Your task to perform on an android device: install app "NewsBreak: Local News & Alerts" Image 0: 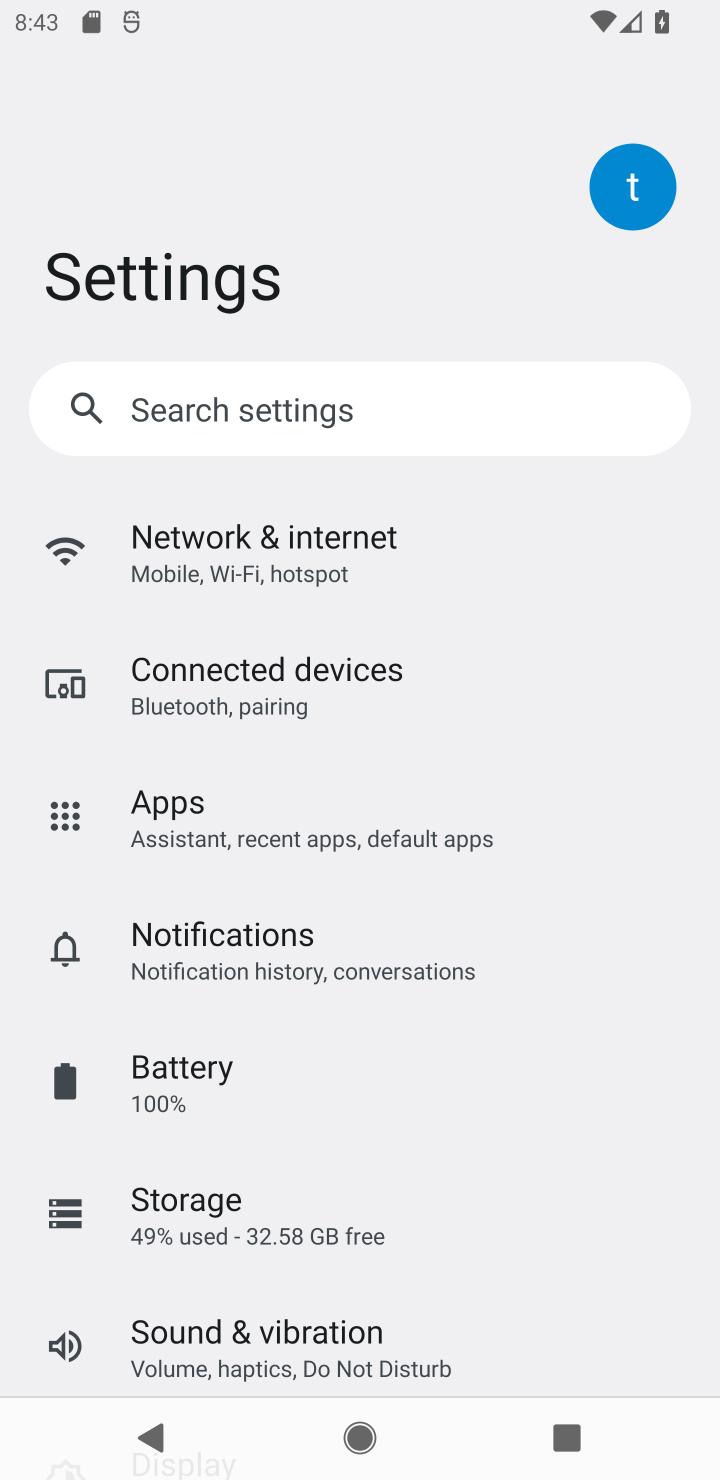
Step 0: press home button
Your task to perform on an android device: install app "NewsBreak: Local News & Alerts" Image 1: 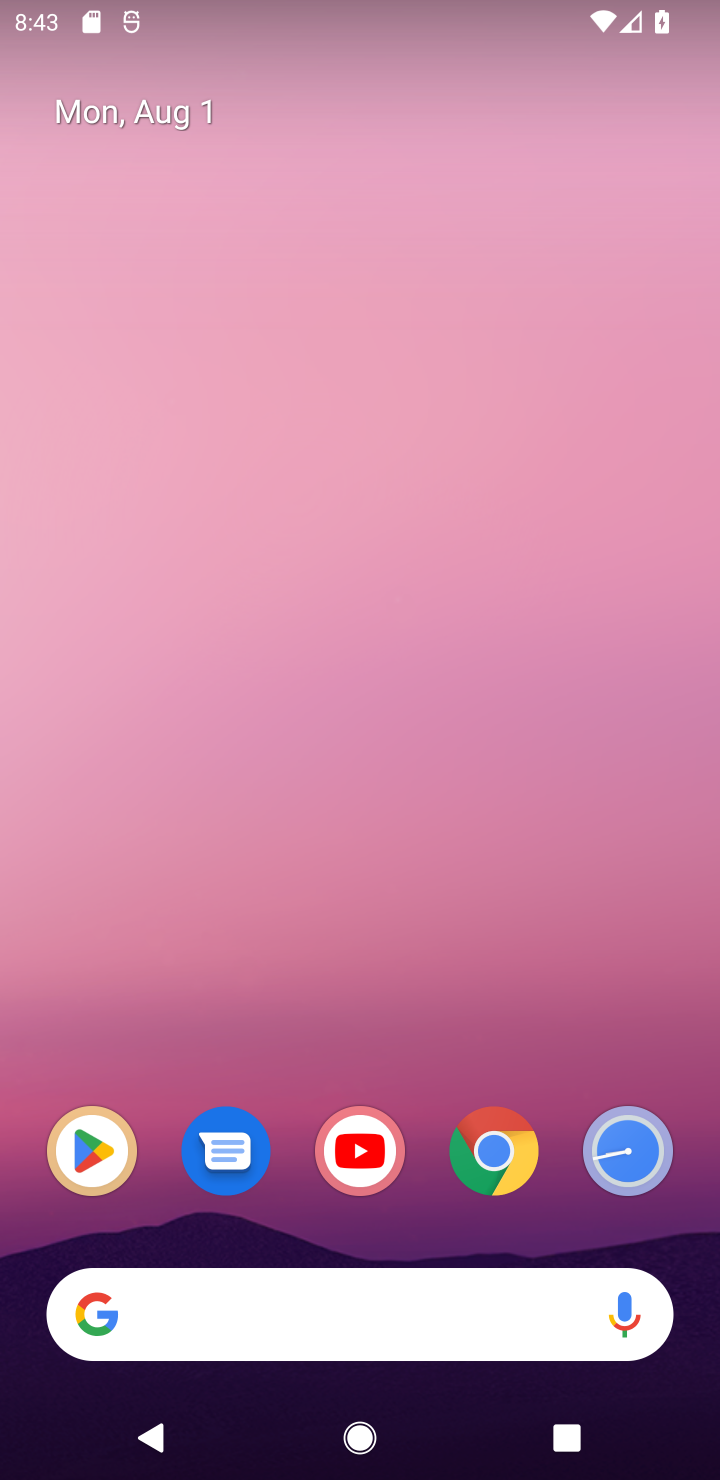
Step 1: click (100, 1170)
Your task to perform on an android device: install app "NewsBreak: Local News & Alerts" Image 2: 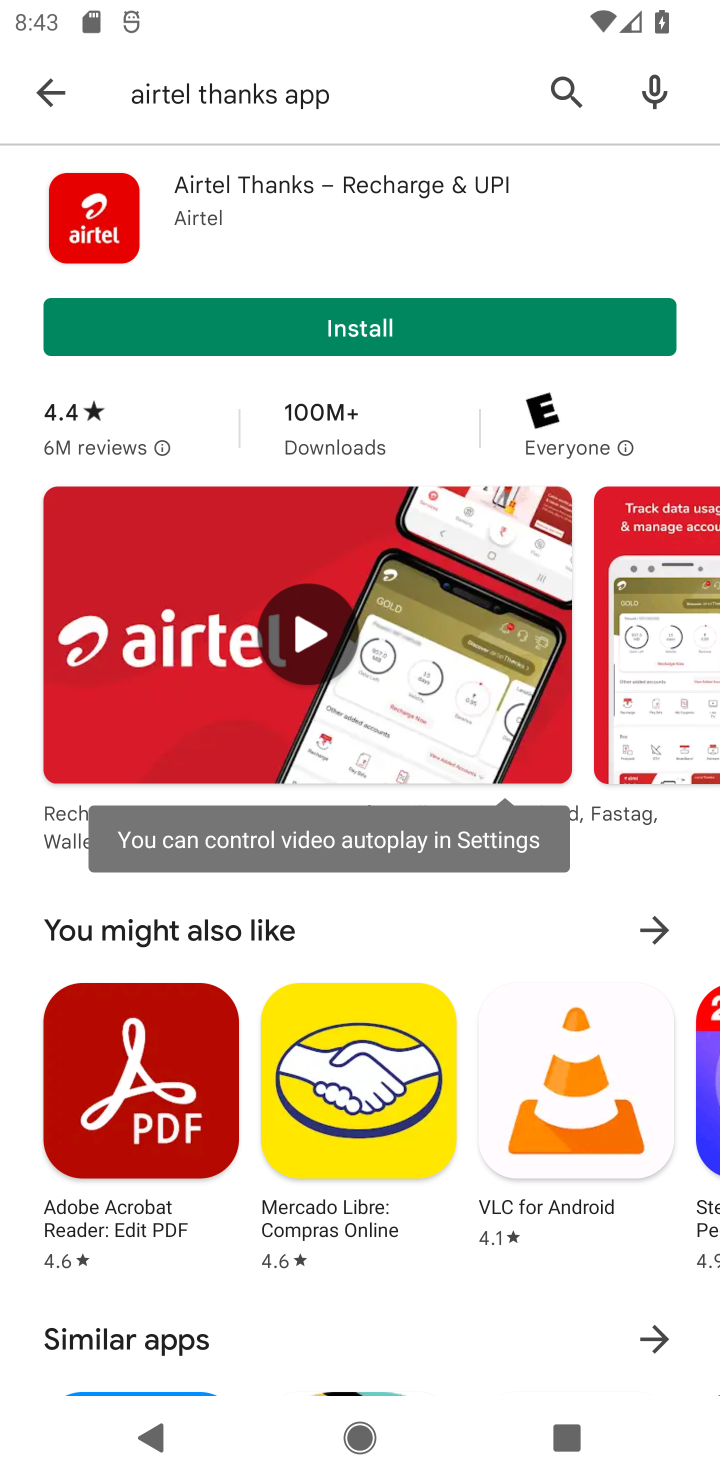
Step 2: click (574, 63)
Your task to perform on an android device: install app "NewsBreak: Local News & Alerts" Image 3: 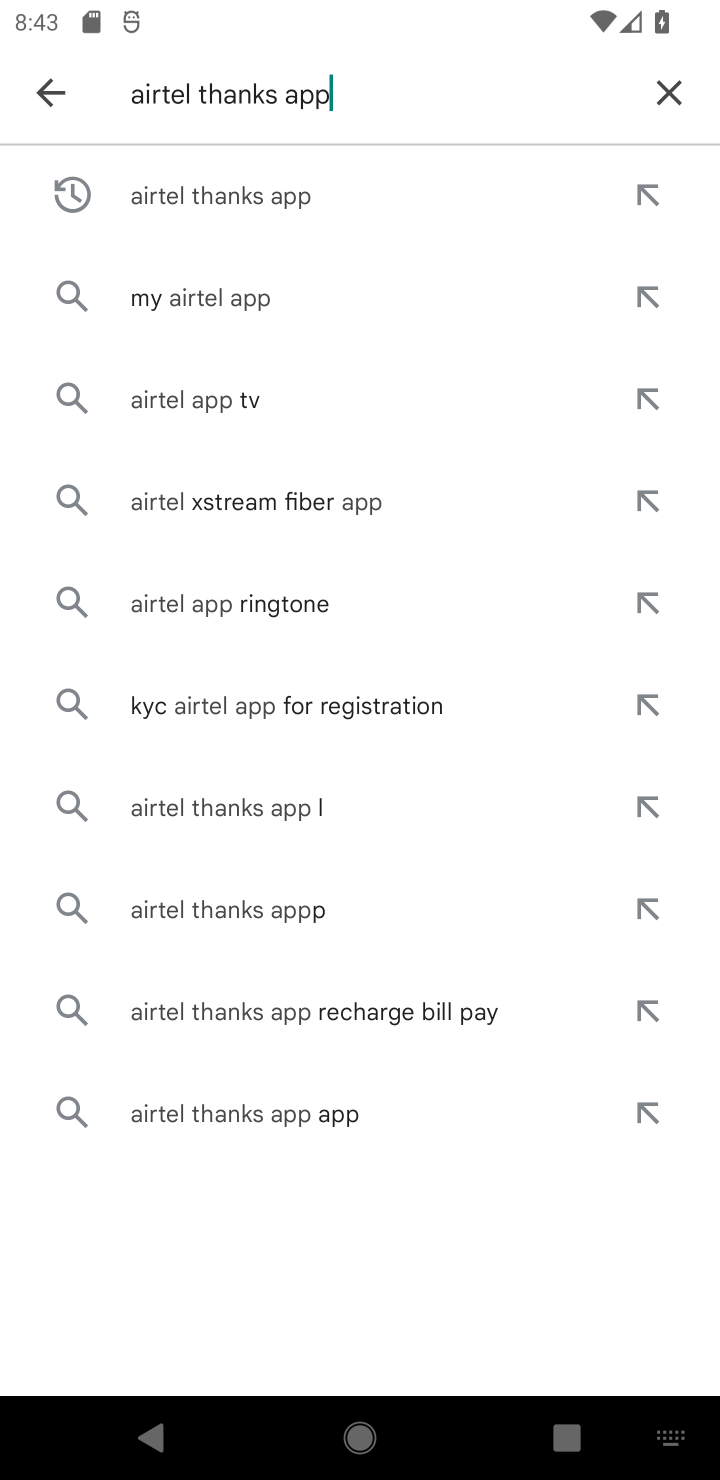
Step 3: click (667, 108)
Your task to perform on an android device: install app "NewsBreak: Local News & Alerts" Image 4: 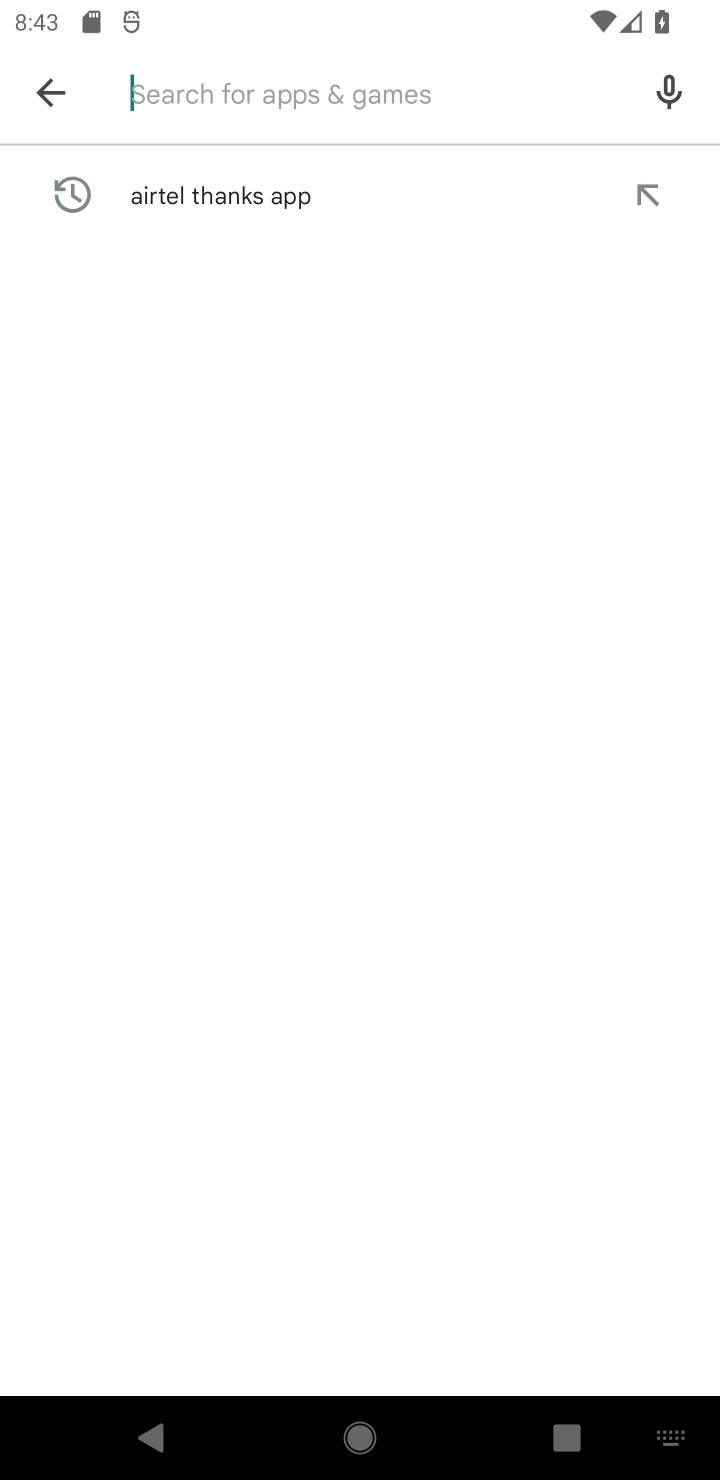
Step 4: click (471, 105)
Your task to perform on an android device: install app "NewsBreak: Local News & Alerts" Image 5: 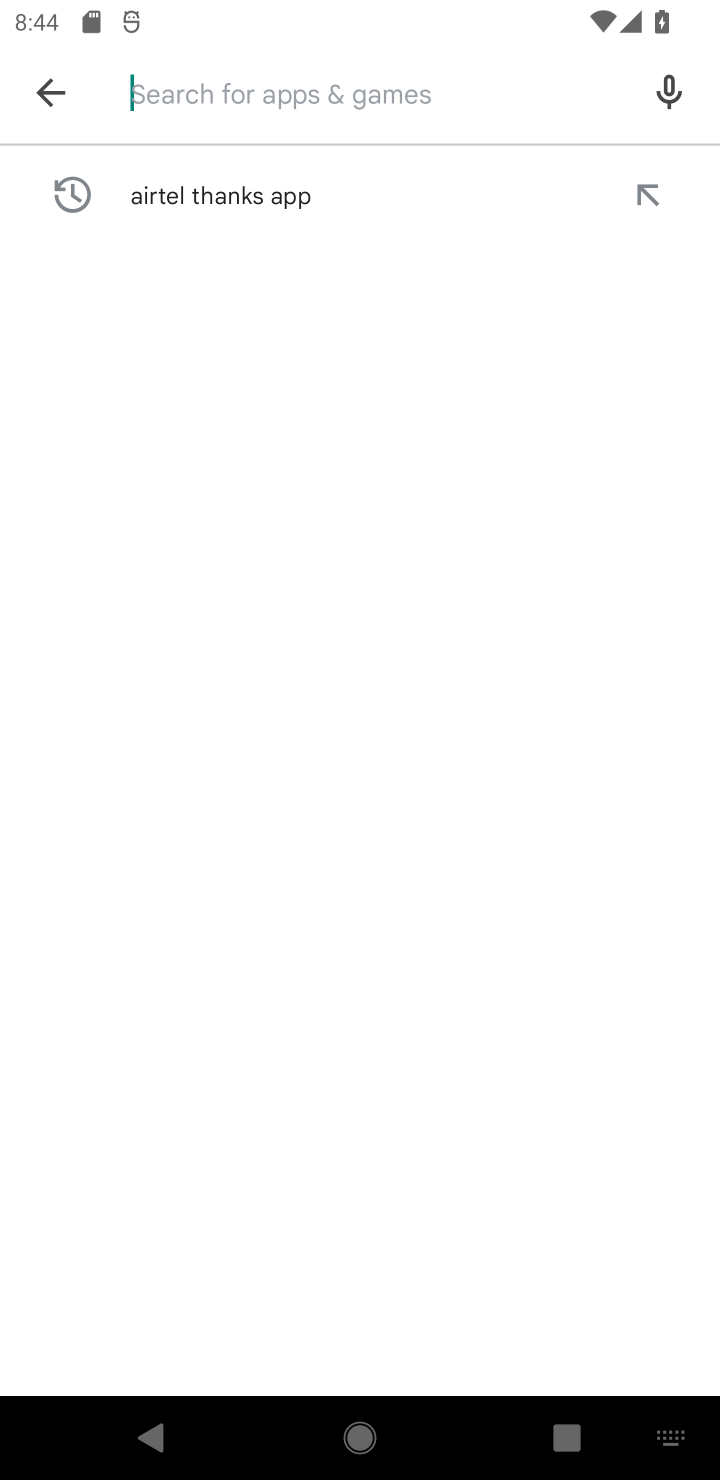
Step 5: type "NewsBreak: Local News & Alerts"
Your task to perform on an android device: install app "NewsBreak: Local News & Alerts" Image 6: 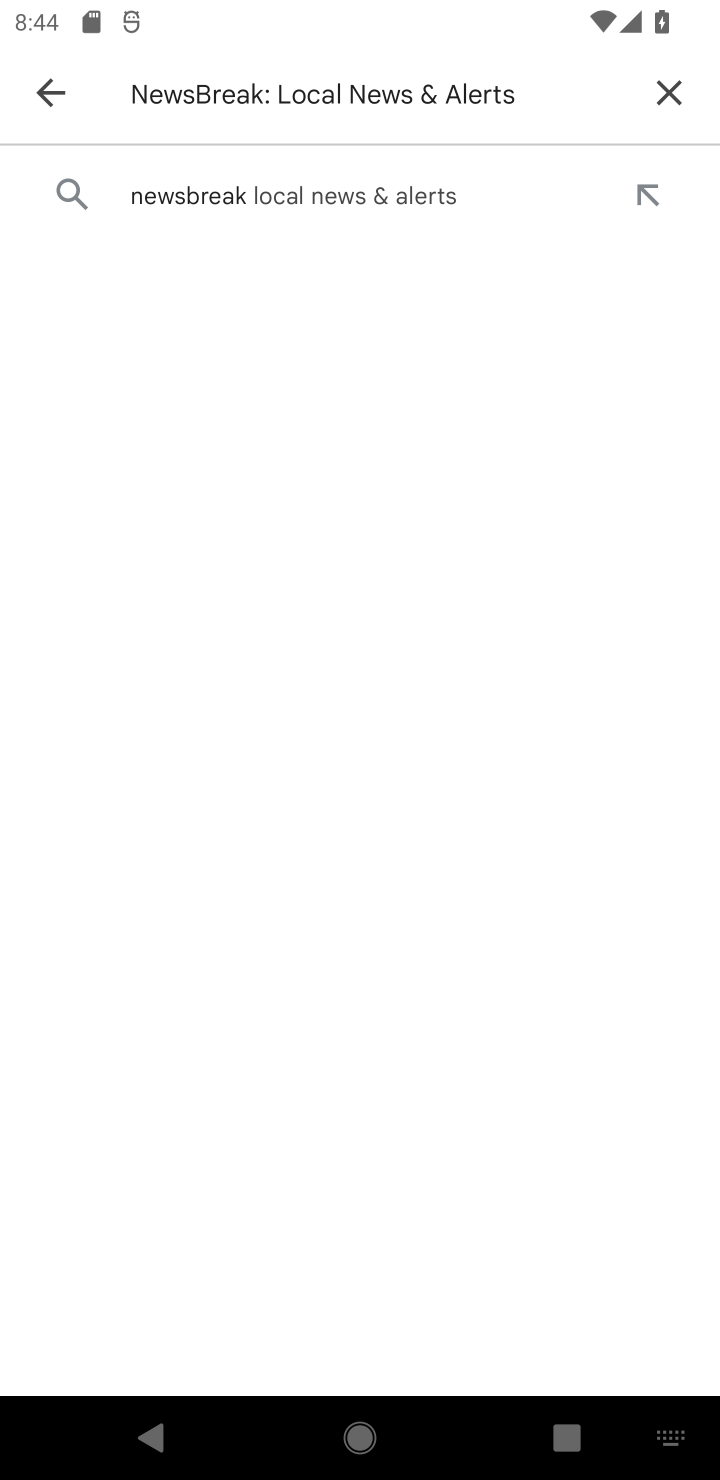
Step 6: click (355, 212)
Your task to perform on an android device: install app "NewsBreak: Local News & Alerts" Image 7: 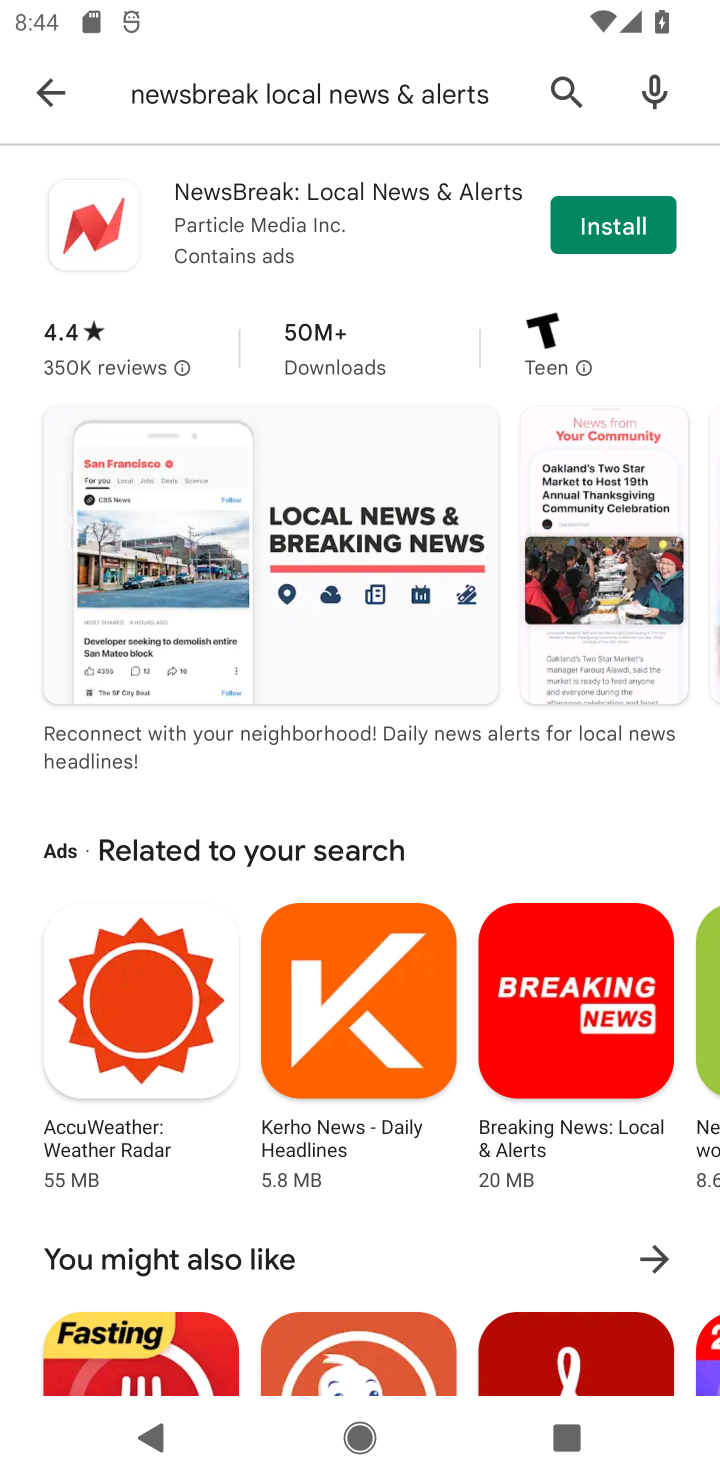
Step 7: click (543, 212)
Your task to perform on an android device: install app "NewsBreak: Local News & Alerts" Image 8: 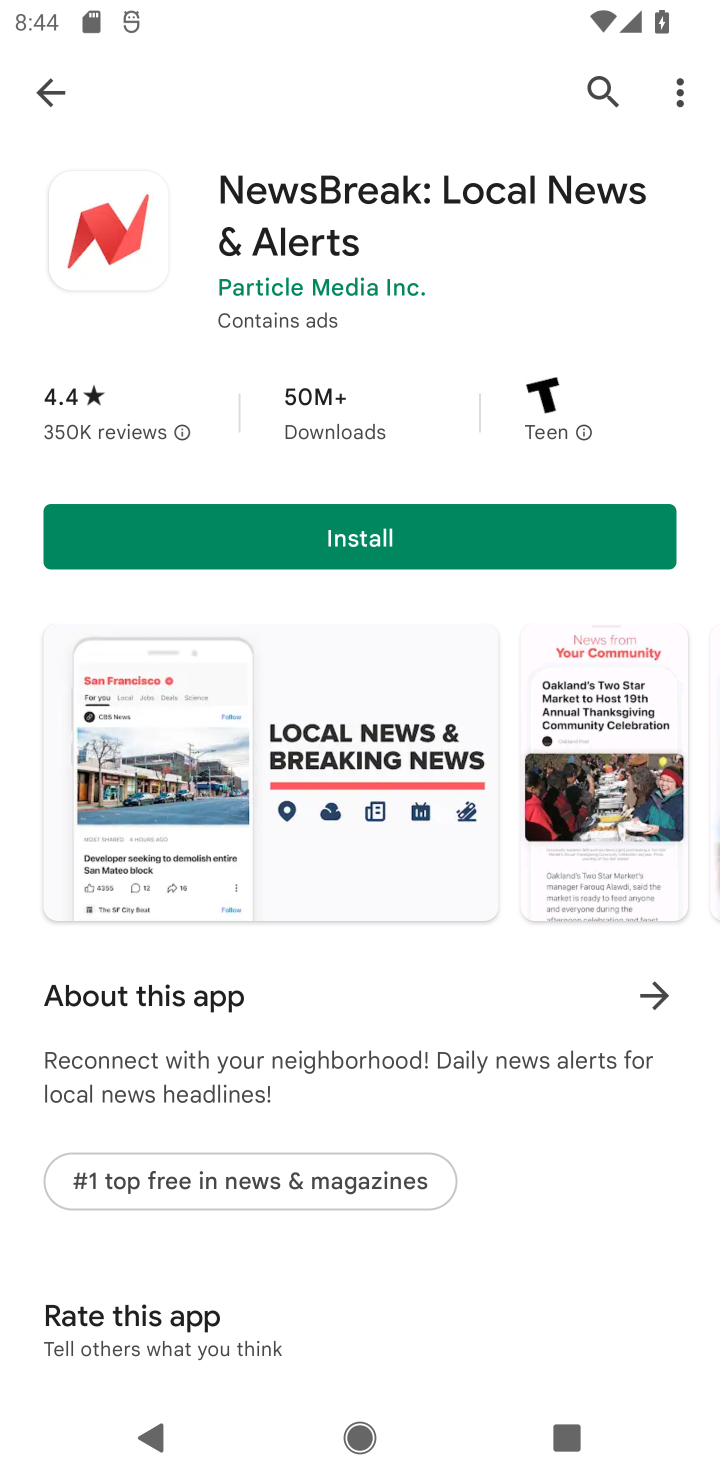
Step 8: click (483, 528)
Your task to perform on an android device: install app "NewsBreak: Local News & Alerts" Image 9: 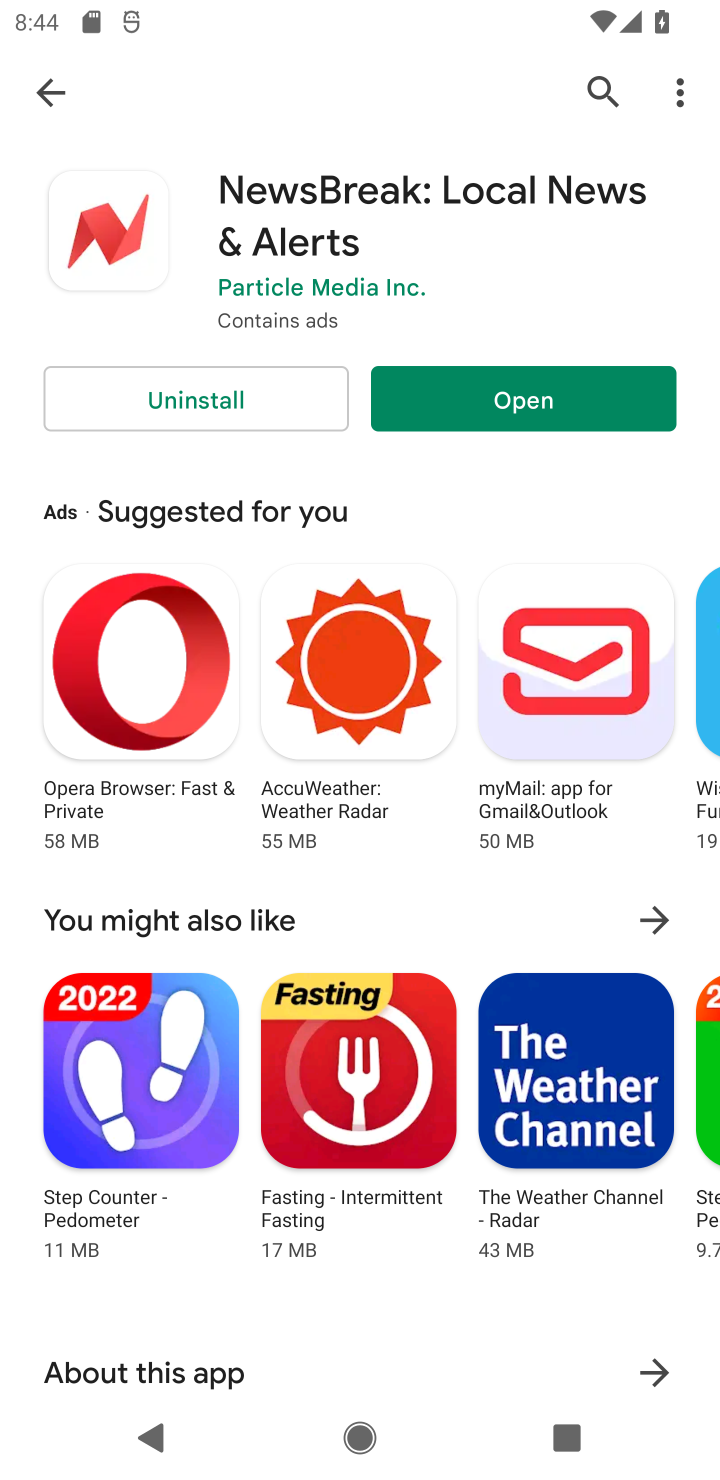
Step 9: task complete